Your task to perform on an android device: Open internet settings Image 0: 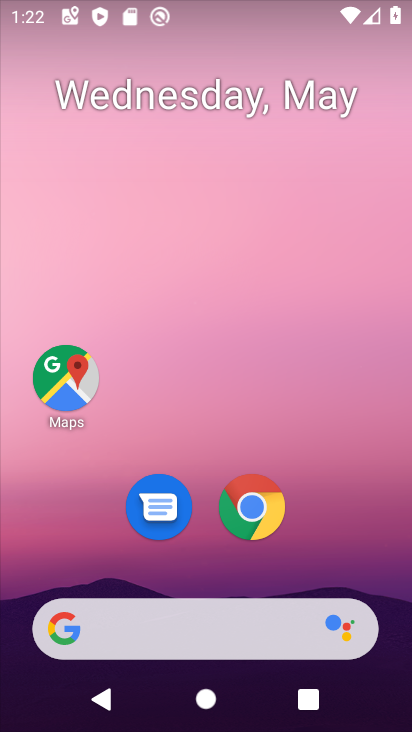
Step 0: drag from (194, 555) to (253, 246)
Your task to perform on an android device: Open internet settings Image 1: 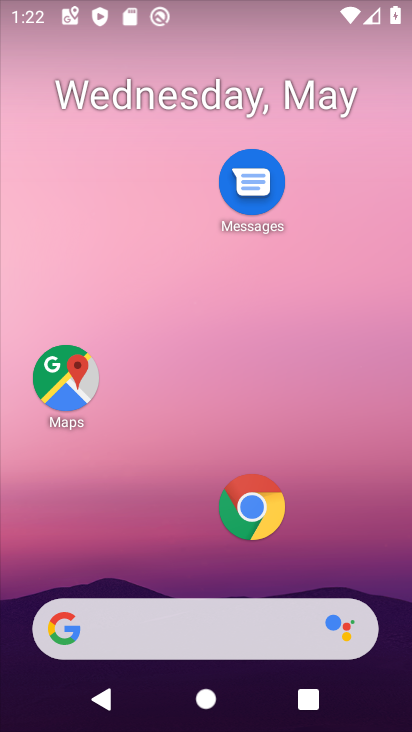
Step 1: drag from (184, 471) to (186, 196)
Your task to perform on an android device: Open internet settings Image 2: 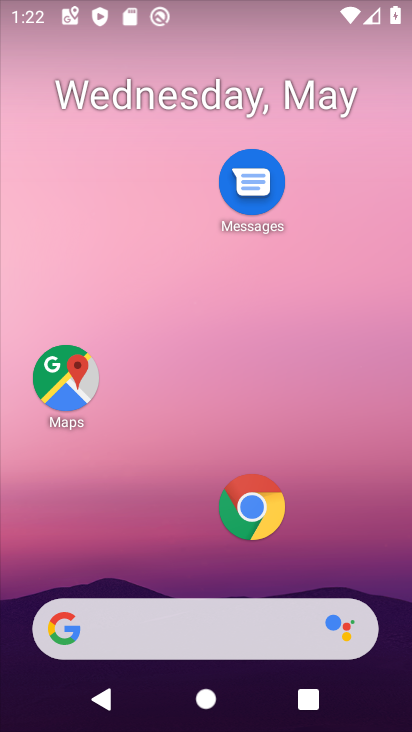
Step 2: drag from (195, 520) to (190, 150)
Your task to perform on an android device: Open internet settings Image 3: 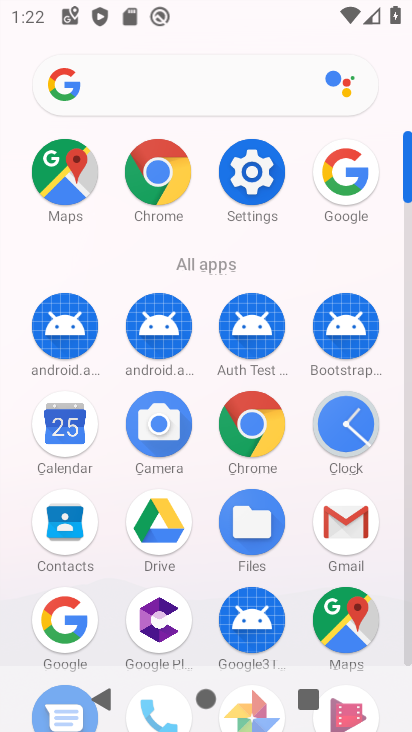
Step 3: click (249, 198)
Your task to perform on an android device: Open internet settings Image 4: 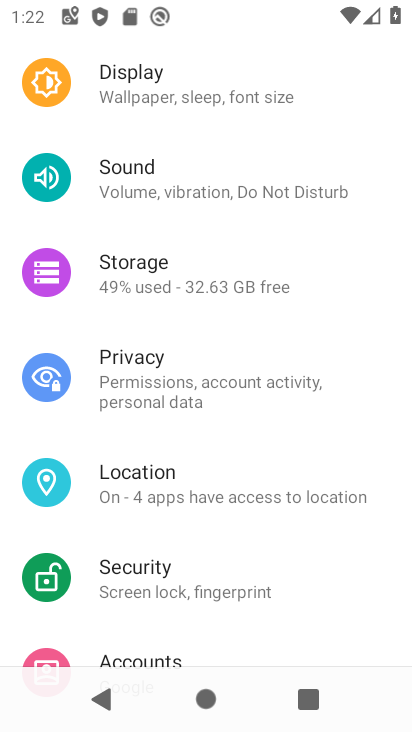
Step 4: drag from (249, 202) to (259, 552)
Your task to perform on an android device: Open internet settings Image 5: 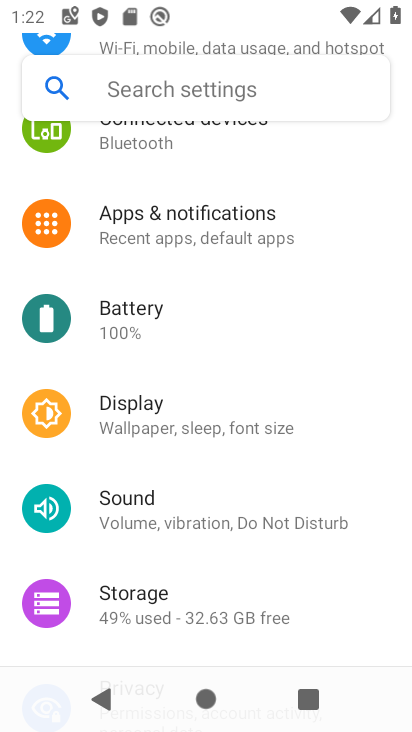
Step 5: drag from (263, 288) to (273, 588)
Your task to perform on an android device: Open internet settings Image 6: 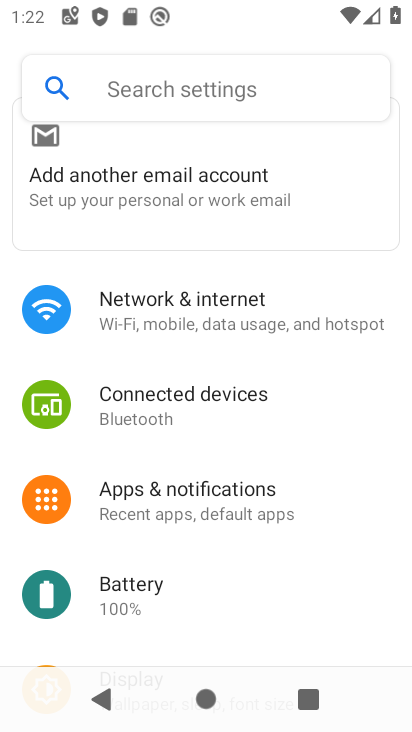
Step 6: click (269, 306)
Your task to perform on an android device: Open internet settings Image 7: 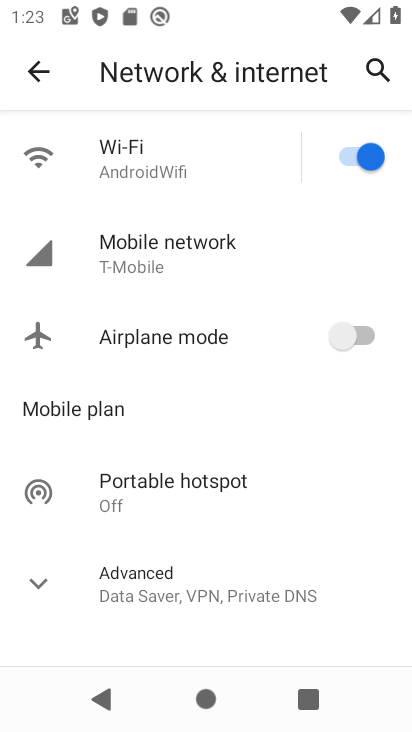
Step 7: click (252, 264)
Your task to perform on an android device: Open internet settings Image 8: 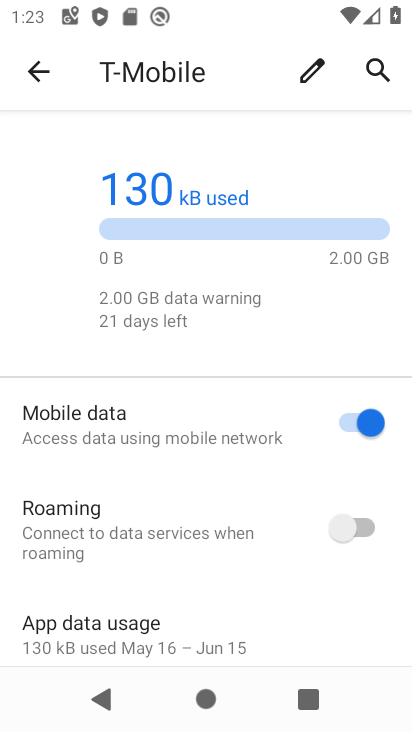
Step 8: task complete